Your task to perform on an android device: turn on bluetooth scan Image 0: 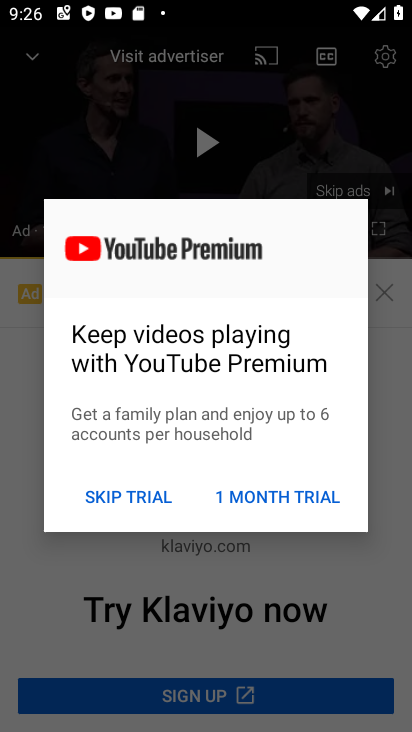
Step 0: press home button
Your task to perform on an android device: turn on bluetooth scan Image 1: 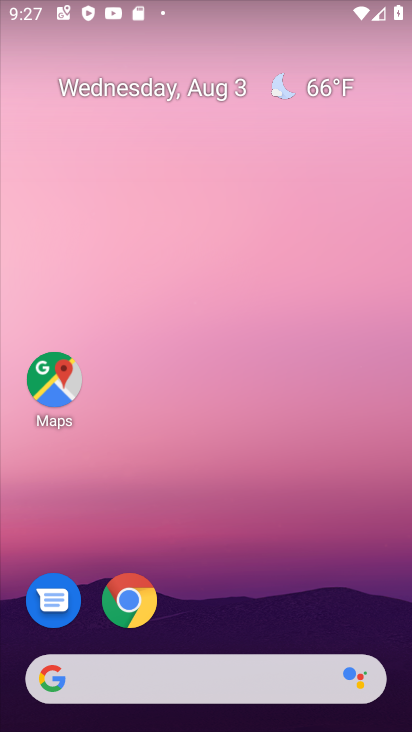
Step 1: drag from (263, 645) to (407, 720)
Your task to perform on an android device: turn on bluetooth scan Image 2: 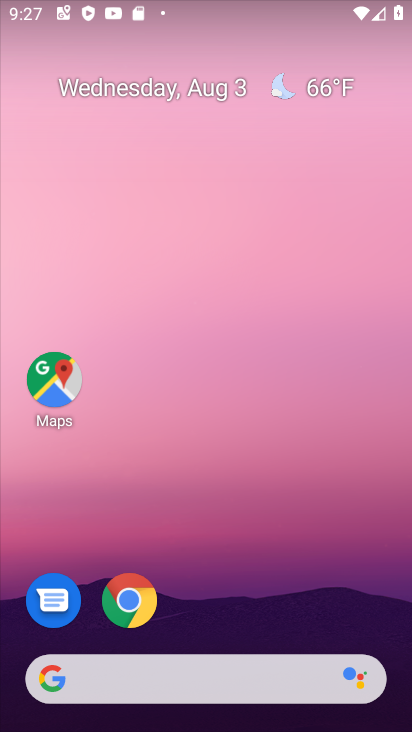
Step 2: click (209, 623)
Your task to perform on an android device: turn on bluetooth scan Image 3: 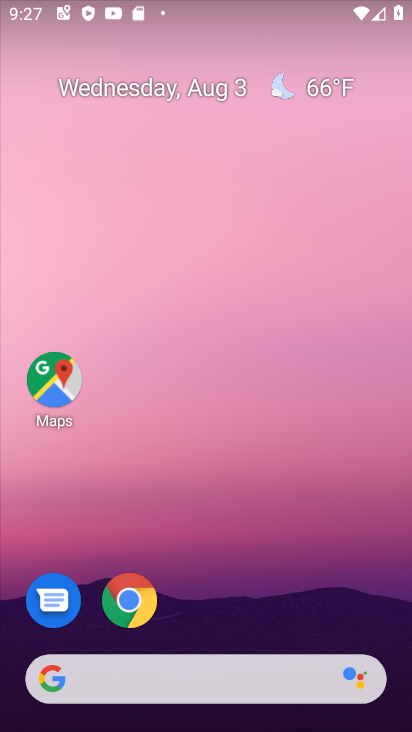
Step 3: drag from (208, 627) to (329, 19)
Your task to perform on an android device: turn on bluetooth scan Image 4: 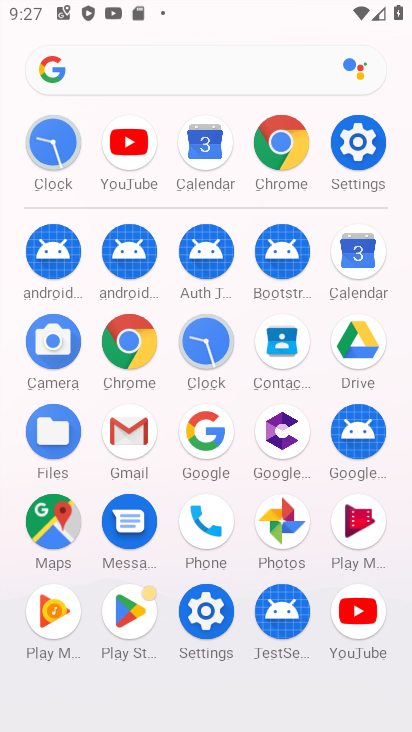
Step 4: click (208, 648)
Your task to perform on an android device: turn on bluetooth scan Image 5: 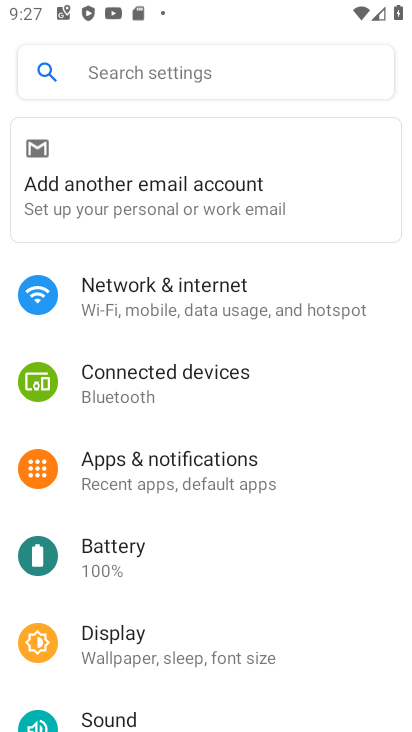
Step 5: drag from (137, 679) to (150, 2)
Your task to perform on an android device: turn on bluetooth scan Image 6: 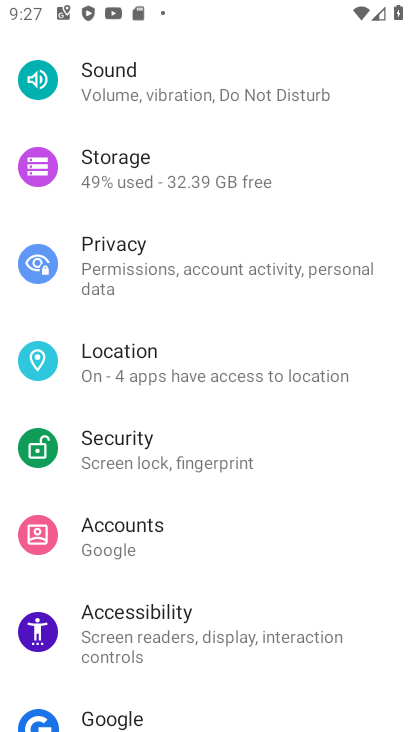
Step 6: click (167, 380)
Your task to perform on an android device: turn on bluetooth scan Image 7: 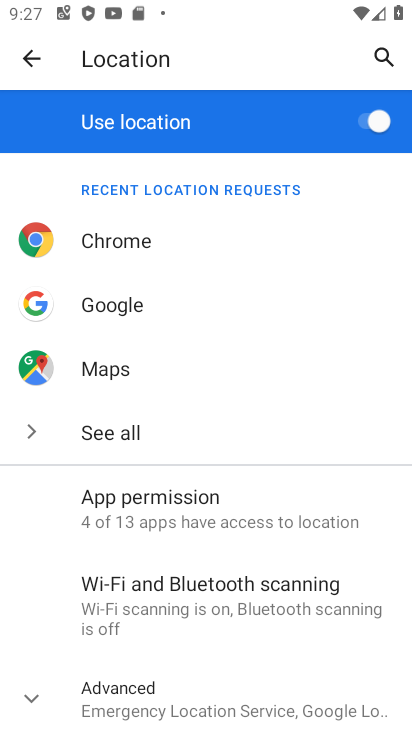
Step 7: click (192, 607)
Your task to perform on an android device: turn on bluetooth scan Image 8: 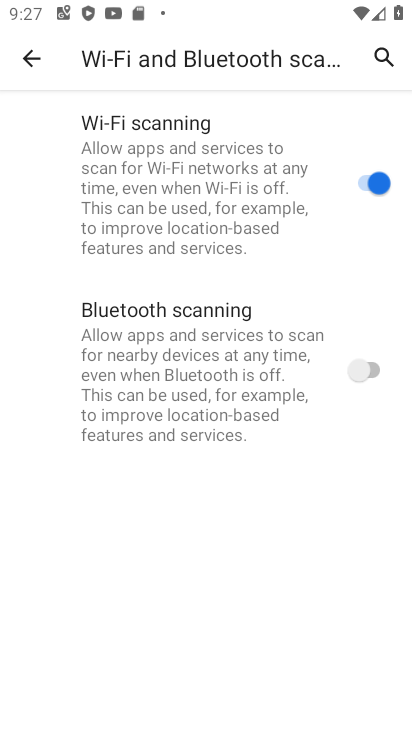
Step 8: click (339, 383)
Your task to perform on an android device: turn on bluetooth scan Image 9: 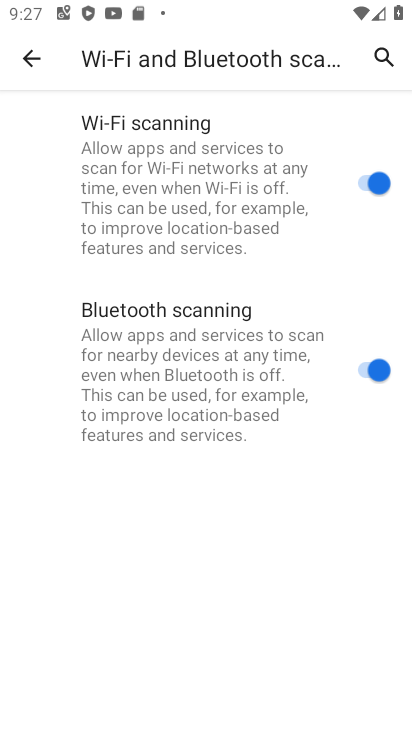
Step 9: task complete